Your task to perform on an android device: turn off notifications settings in the gmail app Image 0: 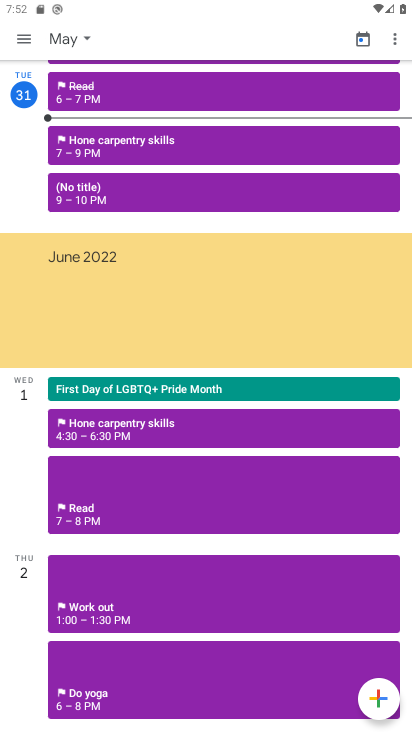
Step 0: press home button
Your task to perform on an android device: turn off notifications settings in the gmail app Image 1: 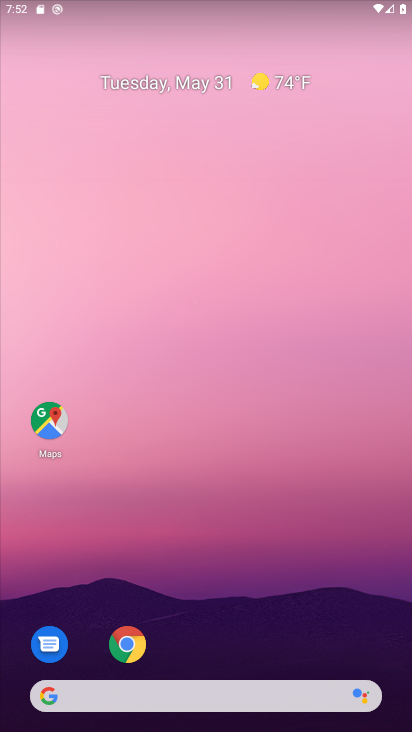
Step 1: drag from (215, 659) to (261, 104)
Your task to perform on an android device: turn off notifications settings in the gmail app Image 2: 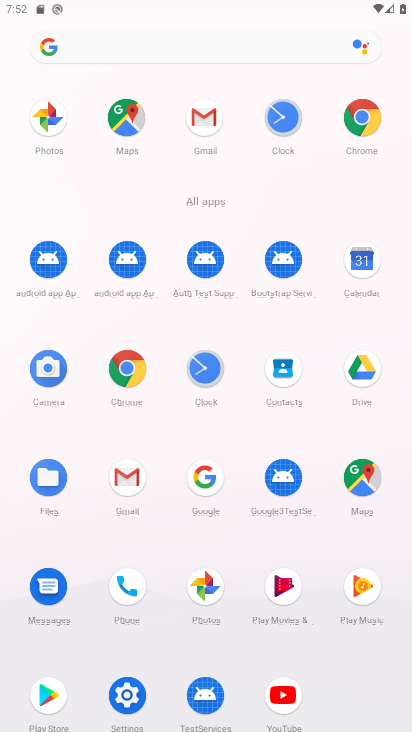
Step 2: click (206, 115)
Your task to perform on an android device: turn off notifications settings in the gmail app Image 3: 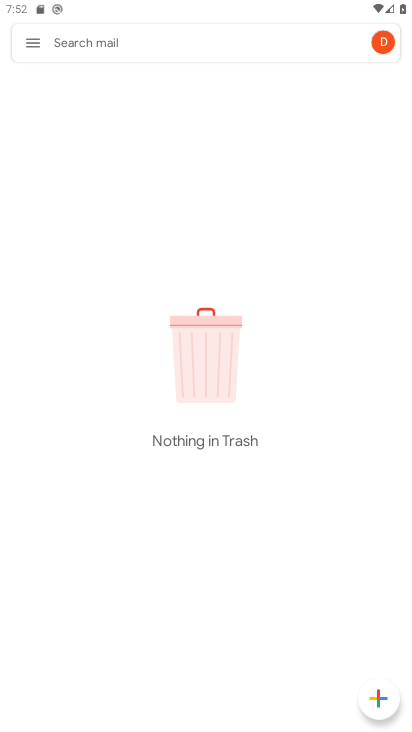
Step 3: click (28, 46)
Your task to perform on an android device: turn off notifications settings in the gmail app Image 4: 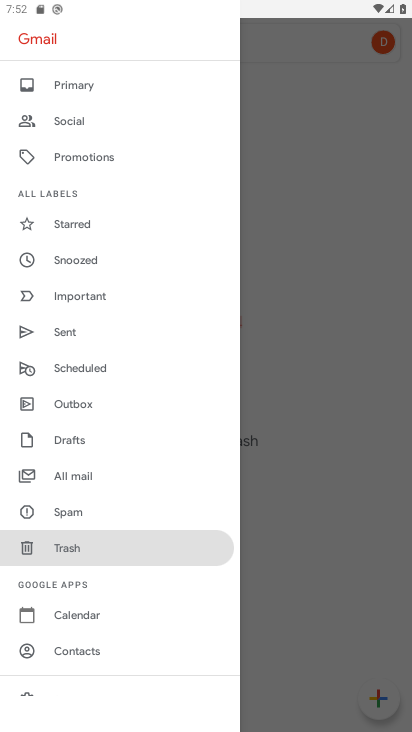
Step 4: drag from (87, 611) to (115, 176)
Your task to perform on an android device: turn off notifications settings in the gmail app Image 5: 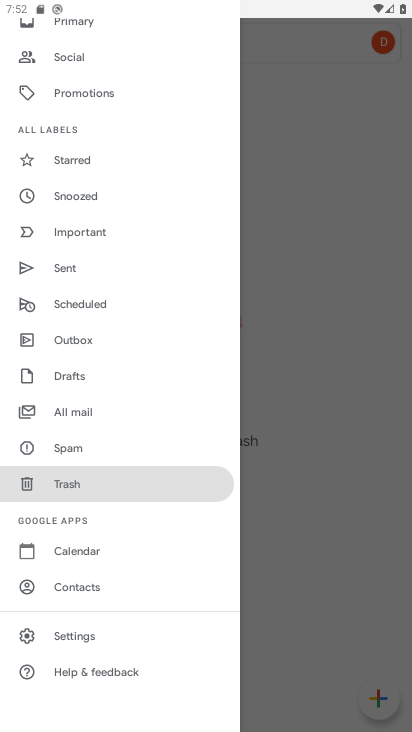
Step 5: click (104, 639)
Your task to perform on an android device: turn off notifications settings in the gmail app Image 6: 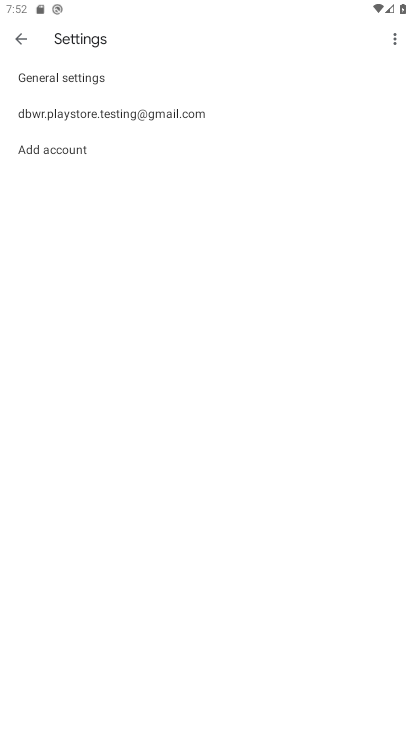
Step 6: click (118, 76)
Your task to perform on an android device: turn off notifications settings in the gmail app Image 7: 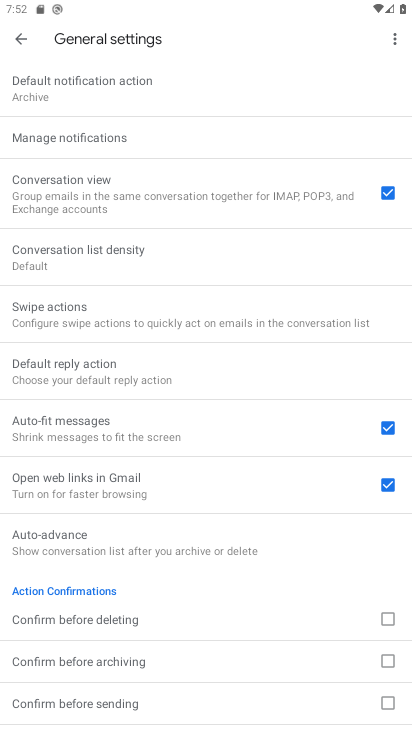
Step 7: click (123, 141)
Your task to perform on an android device: turn off notifications settings in the gmail app Image 8: 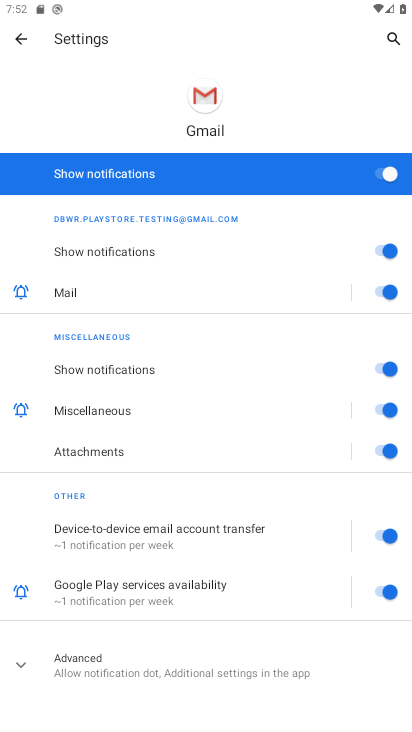
Step 8: click (382, 165)
Your task to perform on an android device: turn off notifications settings in the gmail app Image 9: 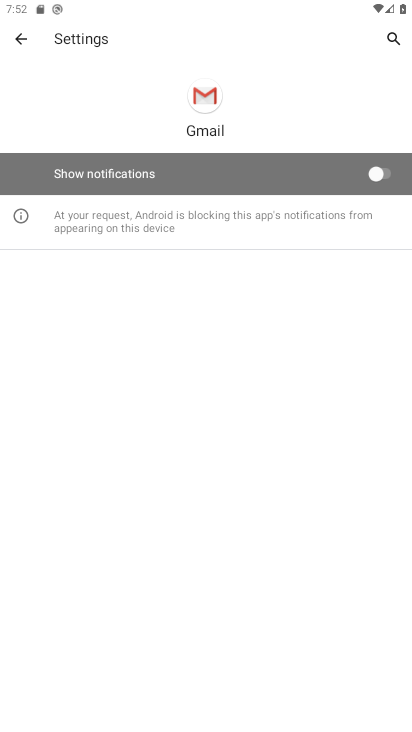
Step 9: task complete